Your task to perform on an android device: Search for Mexican restaurants on Maps Image 0: 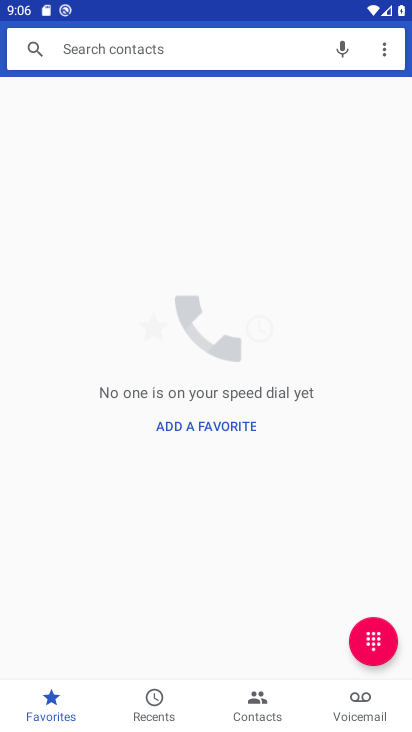
Step 0: press home button
Your task to perform on an android device: Search for Mexican restaurants on Maps Image 1: 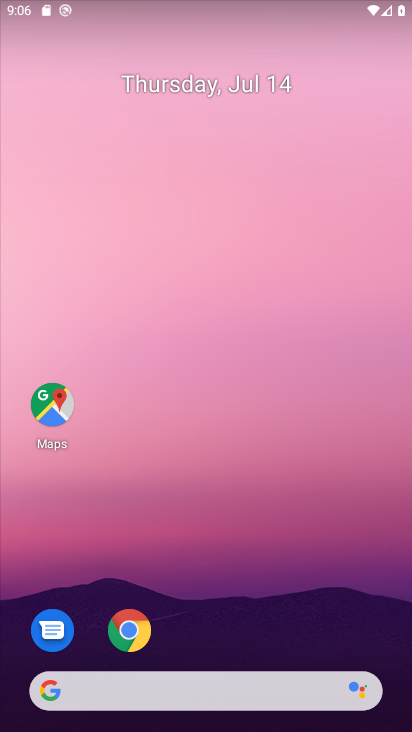
Step 1: drag from (172, 666) to (227, 190)
Your task to perform on an android device: Search for Mexican restaurants on Maps Image 2: 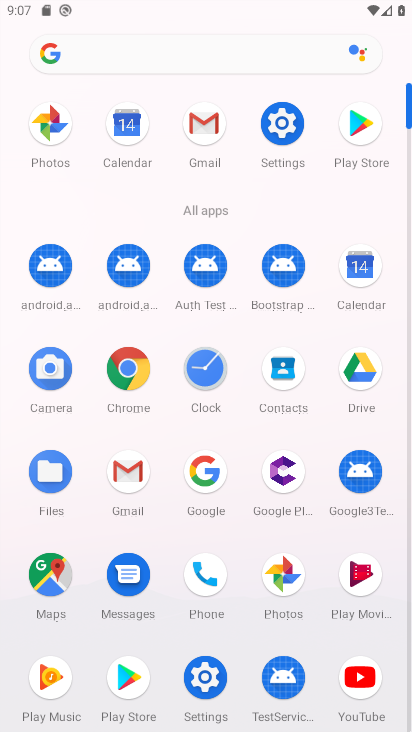
Step 2: click (57, 578)
Your task to perform on an android device: Search for Mexican restaurants on Maps Image 3: 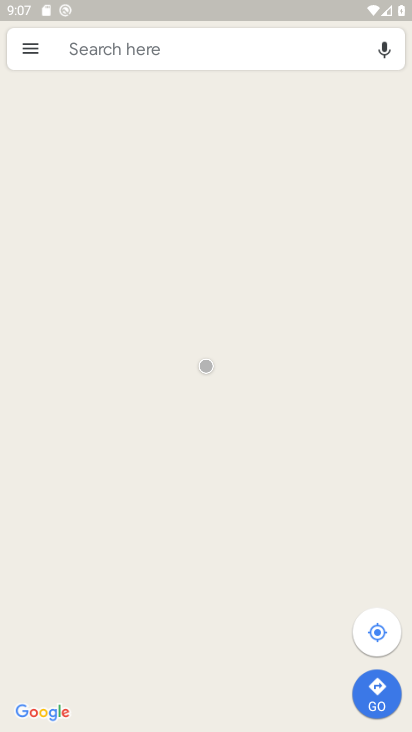
Step 3: click (161, 58)
Your task to perform on an android device: Search for Mexican restaurants on Maps Image 4: 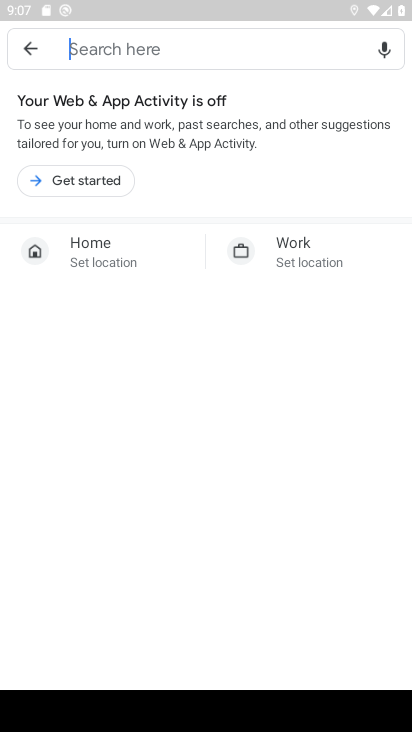
Step 4: type "Mexican restaurants"
Your task to perform on an android device: Search for Mexican restaurants on Maps Image 5: 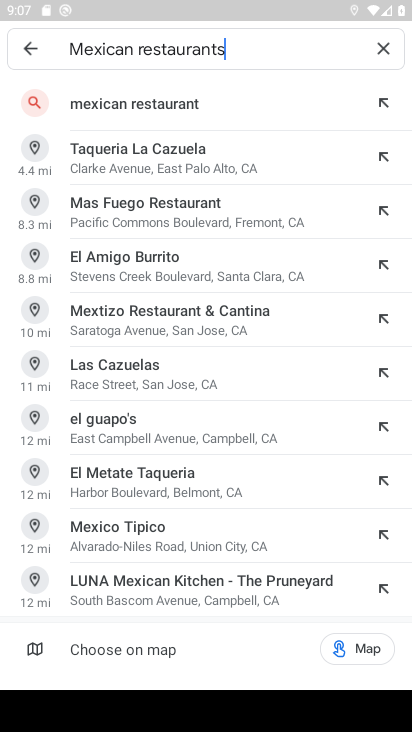
Step 5: click (223, 91)
Your task to perform on an android device: Search for Mexican restaurants on Maps Image 6: 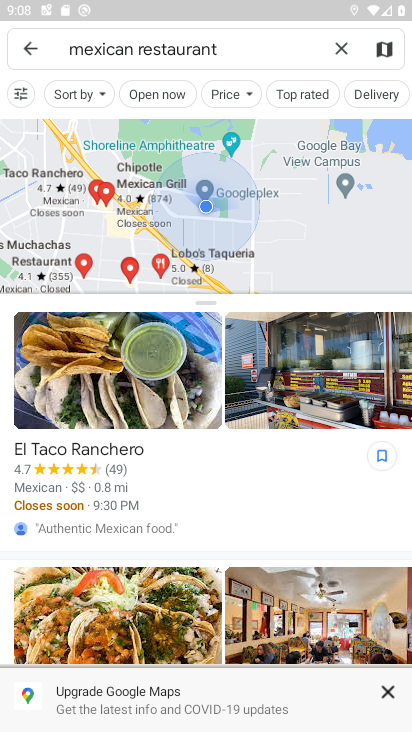
Step 6: task complete